Your task to perform on an android device: turn on the 24-hour format for clock Image 0: 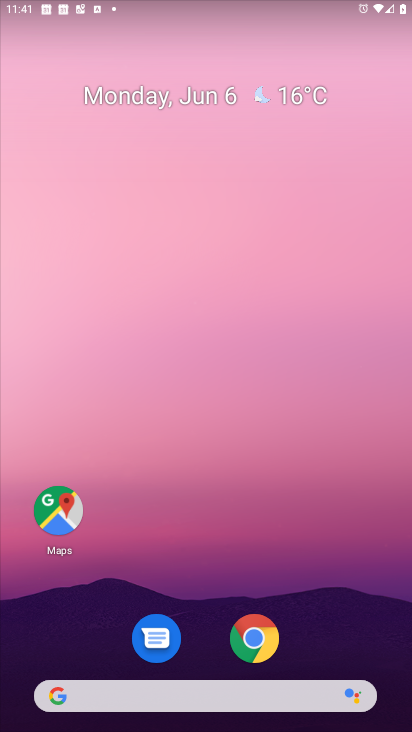
Step 0: drag from (237, 707) to (289, 171)
Your task to perform on an android device: turn on the 24-hour format for clock Image 1: 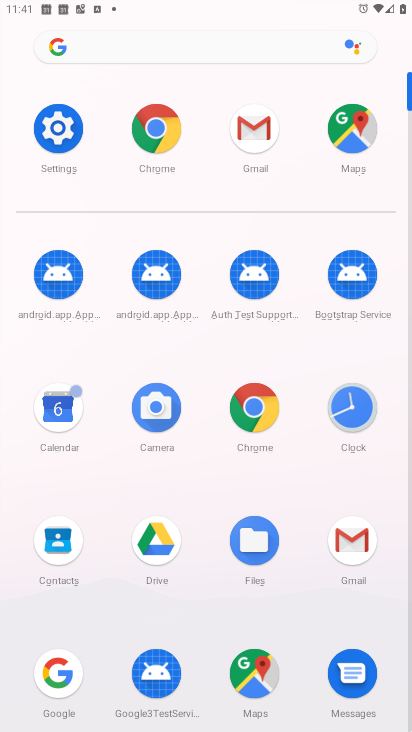
Step 1: click (337, 417)
Your task to perform on an android device: turn on the 24-hour format for clock Image 2: 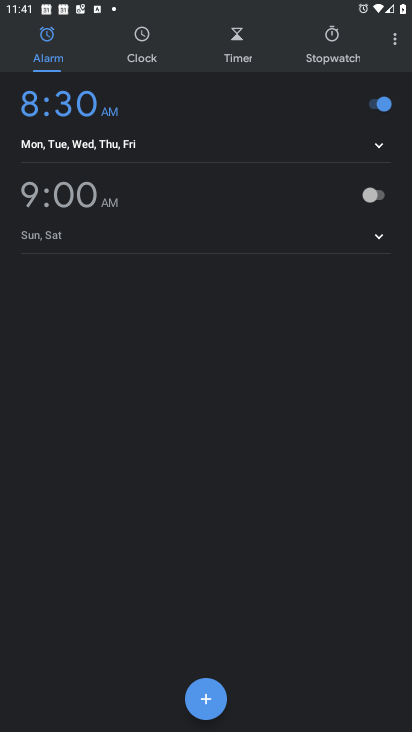
Step 2: click (385, 49)
Your task to perform on an android device: turn on the 24-hour format for clock Image 3: 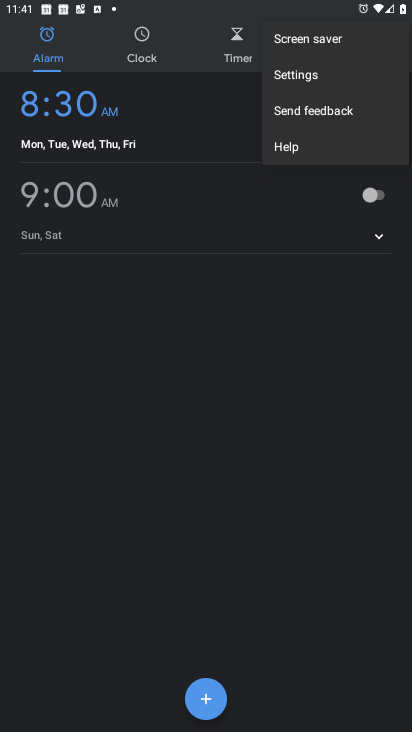
Step 3: click (300, 79)
Your task to perform on an android device: turn on the 24-hour format for clock Image 4: 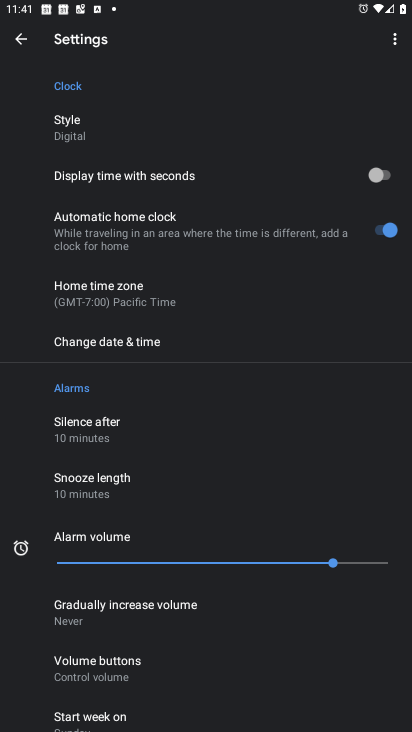
Step 4: click (86, 345)
Your task to perform on an android device: turn on the 24-hour format for clock Image 5: 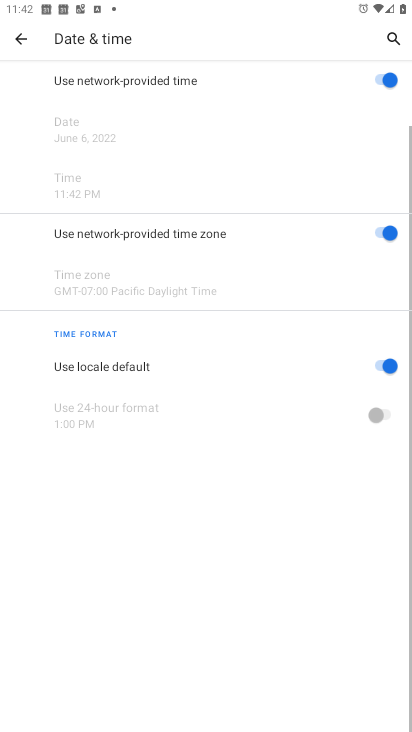
Step 5: click (369, 371)
Your task to perform on an android device: turn on the 24-hour format for clock Image 6: 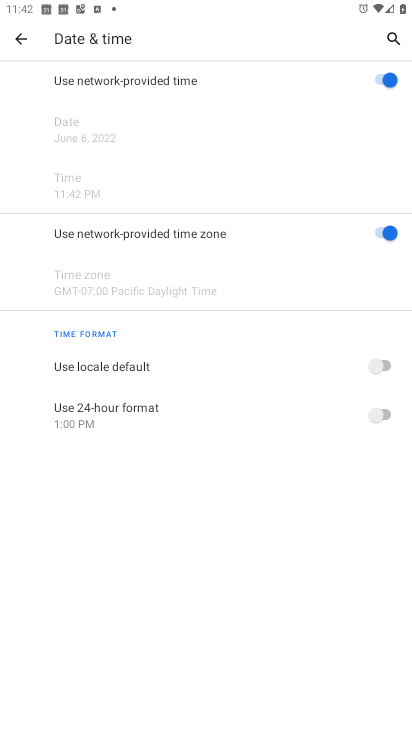
Step 6: click (372, 425)
Your task to perform on an android device: turn on the 24-hour format for clock Image 7: 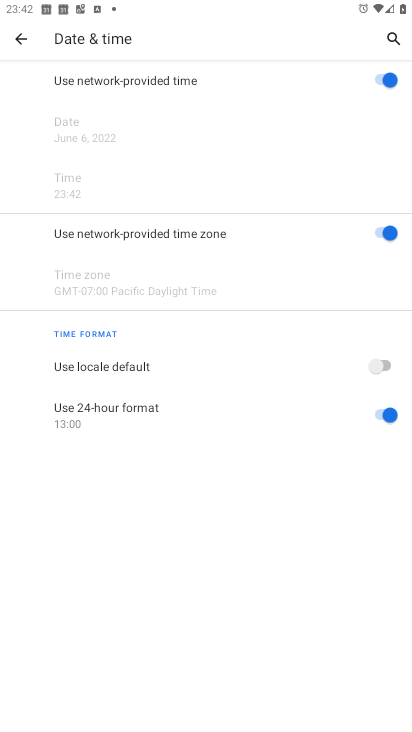
Step 7: task complete